Your task to perform on an android device: Go to sound settings Image 0: 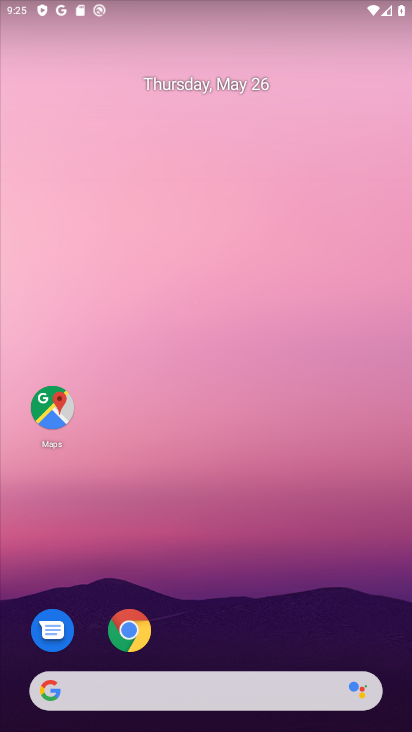
Step 0: drag from (237, 614) to (254, 166)
Your task to perform on an android device: Go to sound settings Image 1: 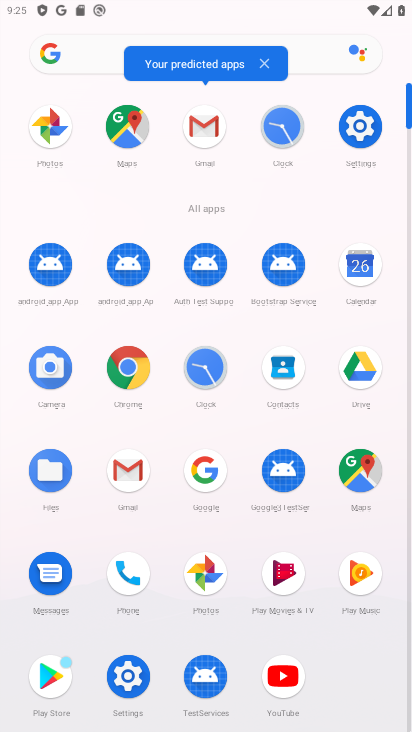
Step 1: click (339, 134)
Your task to perform on an android device: Go to sound settings Image 2: 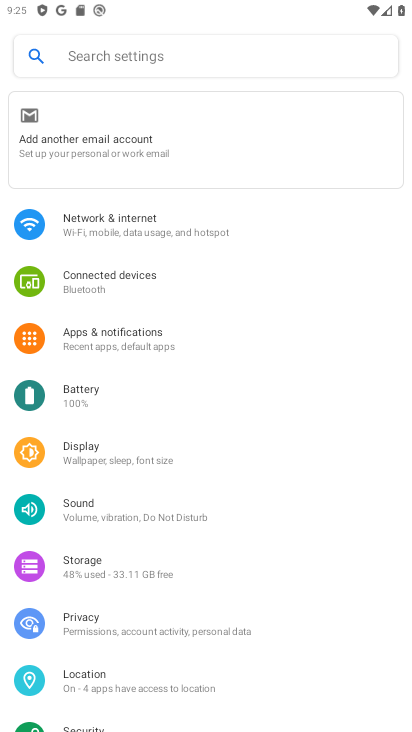
Step 2: click (81, 517)
Your task to perform on an android device: Go to sound settings Image 3: 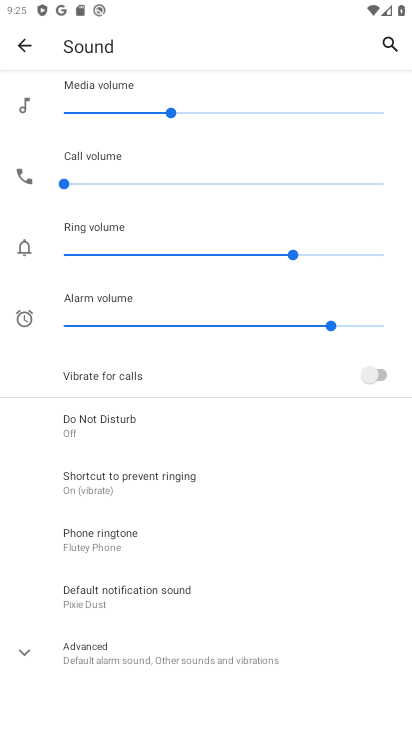
Step 3: task complete